Your task to perform on an android device: check the backup settings in the google photos Image 0: 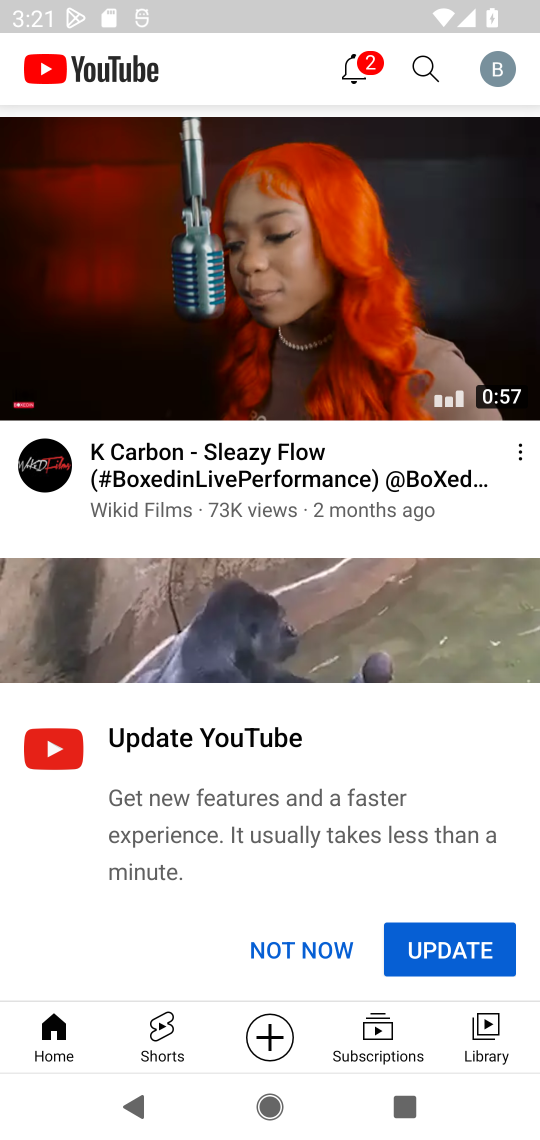
Step 0: press home button
Your task to perform on an android device: check the backup settings in the google photos Image 1: 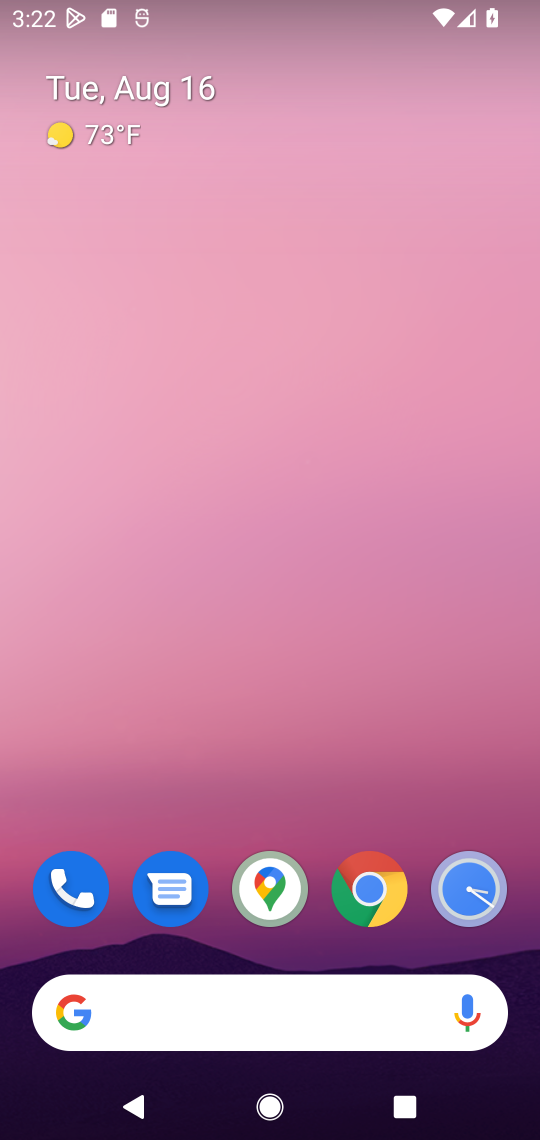
Step 1: drag from (146, 734) to (168, 135)
Your task to perform on an android device: check the backup settings in the google photos Image 2: 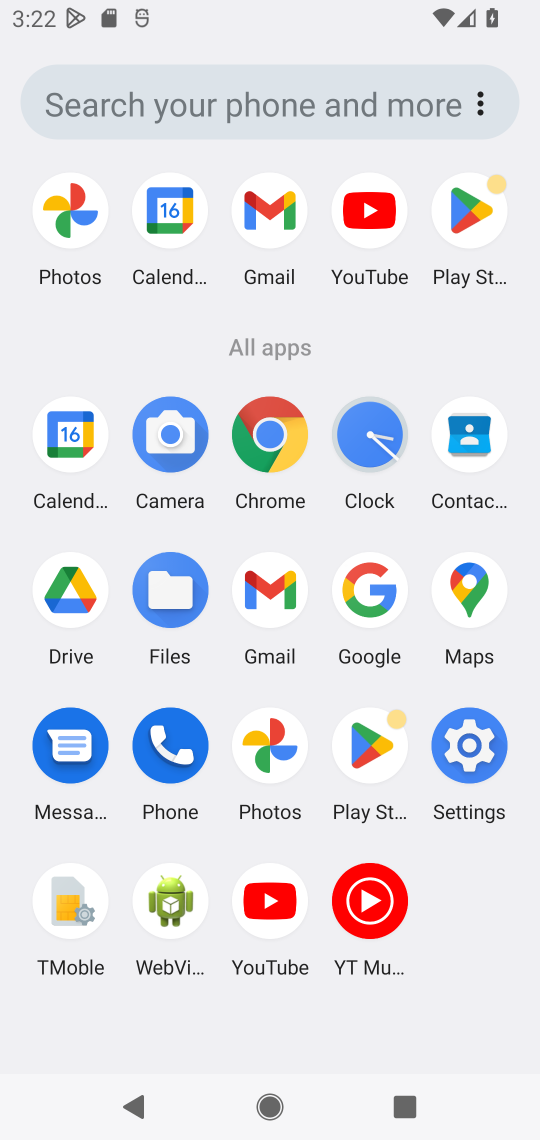
Step 2: click (265, 743)
Your task to perform on an android device: check the backup settings in the google photos Image 3: 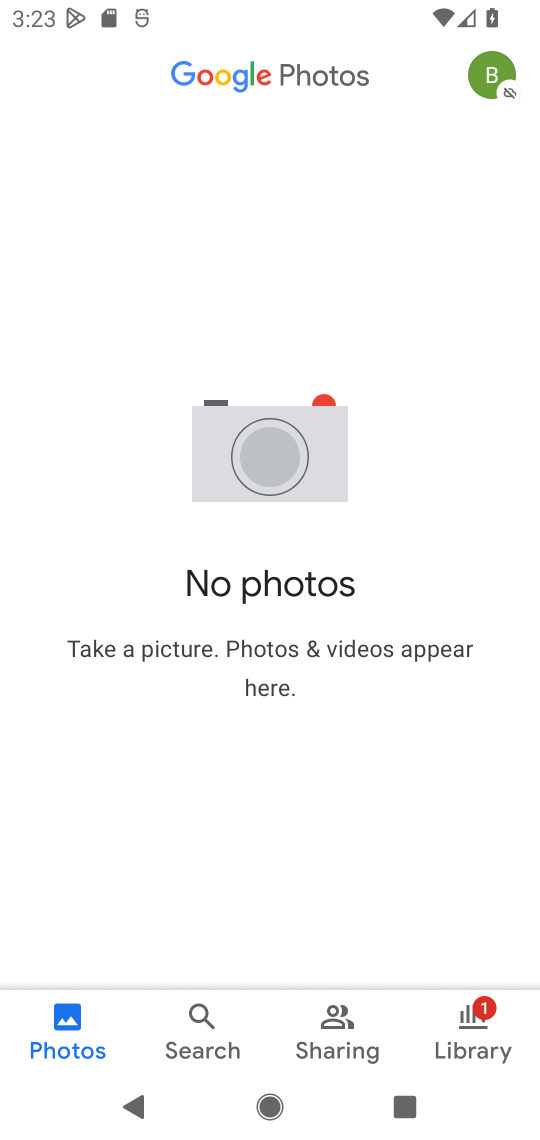
Step 3: press home button
Your task to perform on an android device: check the backup settings in the google photos Image 4: 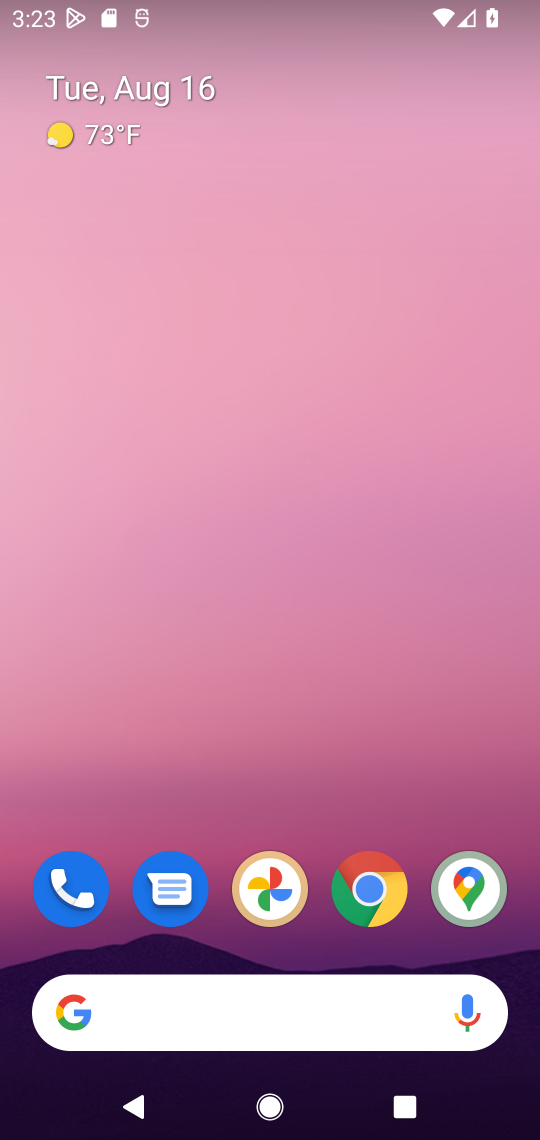
Step 4: click (272, 873)
Your task to perform on an android device: check the backup settings in the google photos Image 5: 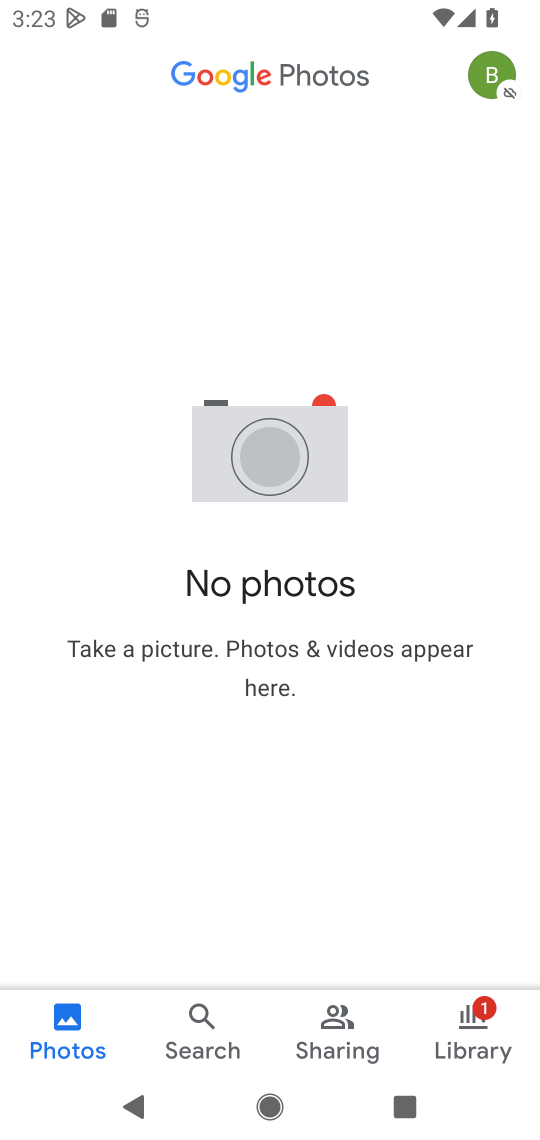
Step 5: task complete